Your task to perform on an android device: toggle data saver in the chrome app Image 0: 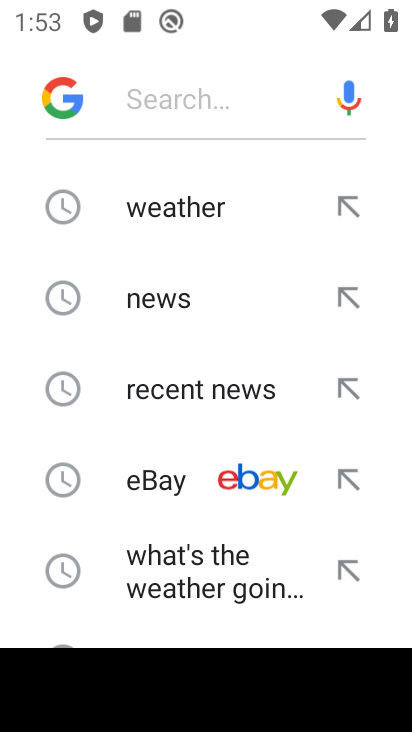
Step 0: press home button
Your task to perform on an android device: toggle data saver in the chrome app Image 1: 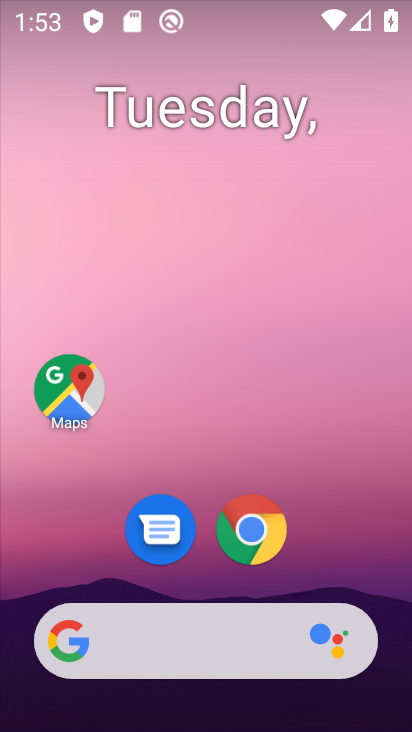
Step 1: drag from (212, 581) to (226, 99)
Your task to perform on an android device: toggle data saver in the chrome app Image 2: 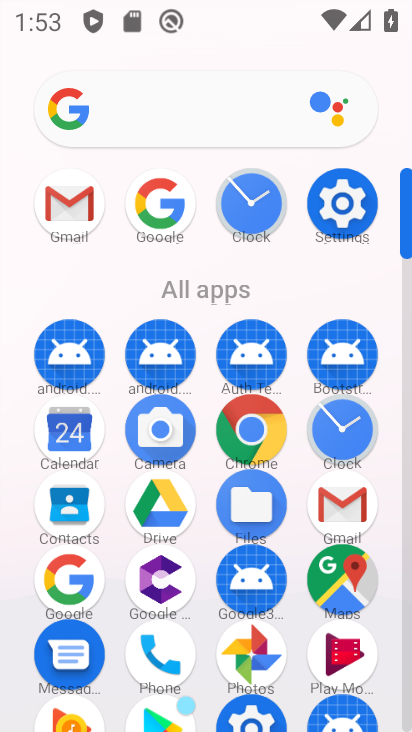
Step 2: click (253, 429)
Your task to perform on an android device: toggle data saver in the chrome app Image 3: 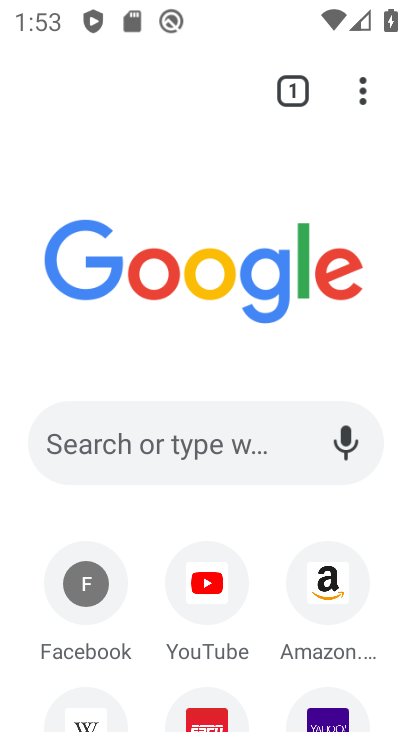
Step 3: click (355, 90)
Your task to perform on an android device: toggle data saver in the chrome app Image 4: 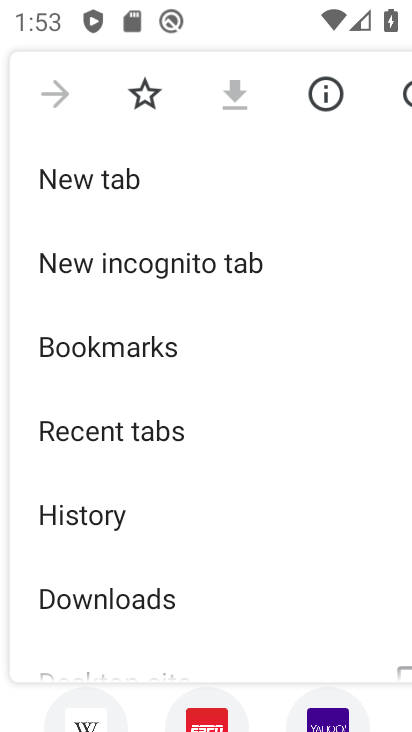
Step 4: drag from (207, 604) to (210, 101)
Your task to perform on an android device: toggle data saver in the chrome app Image 5: 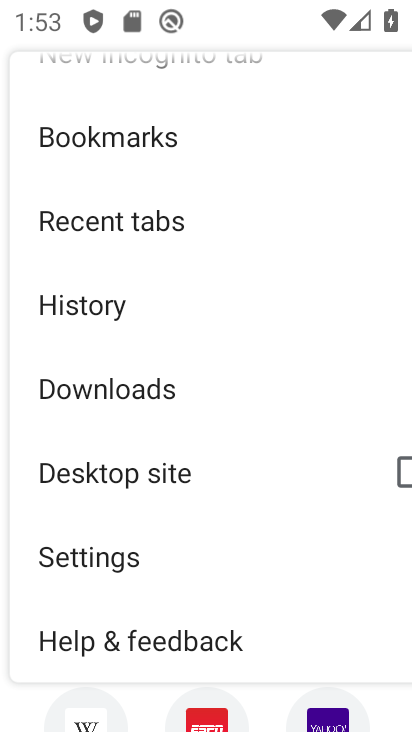
Step 5: click (97, 560)
Your task to perform on an android device: toggle data saver in the chrome app Image 6: 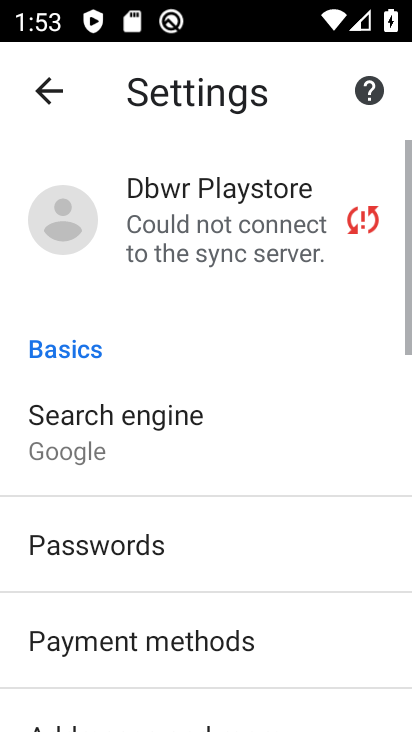
Step 6: task complete